Your task to perform on an android device: find photos in the google photos app Image 0: 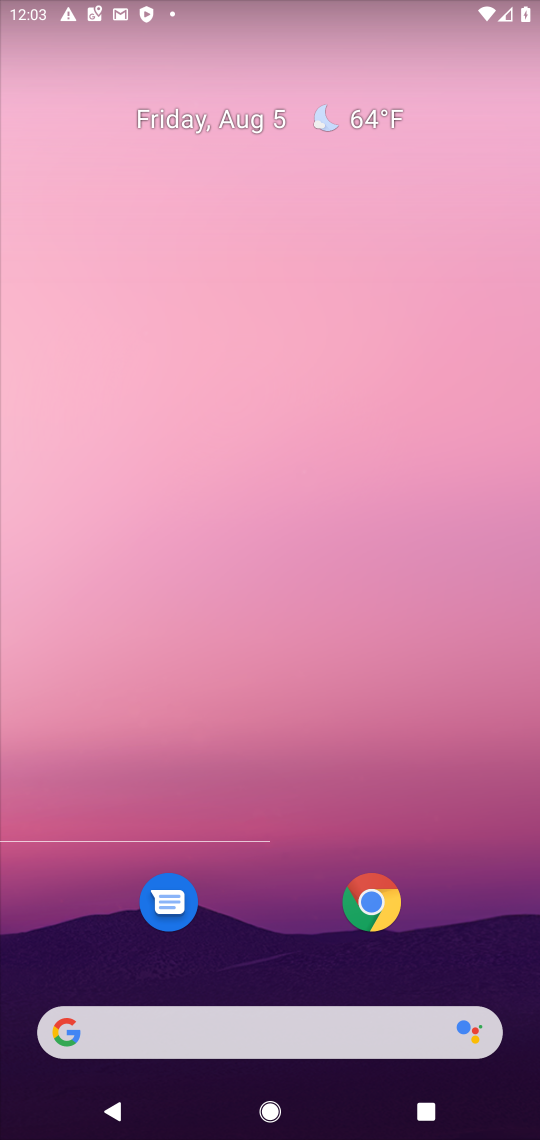
Step 0: press home button
Your task to perform on an android device: find photos in the google photos app Image 1: 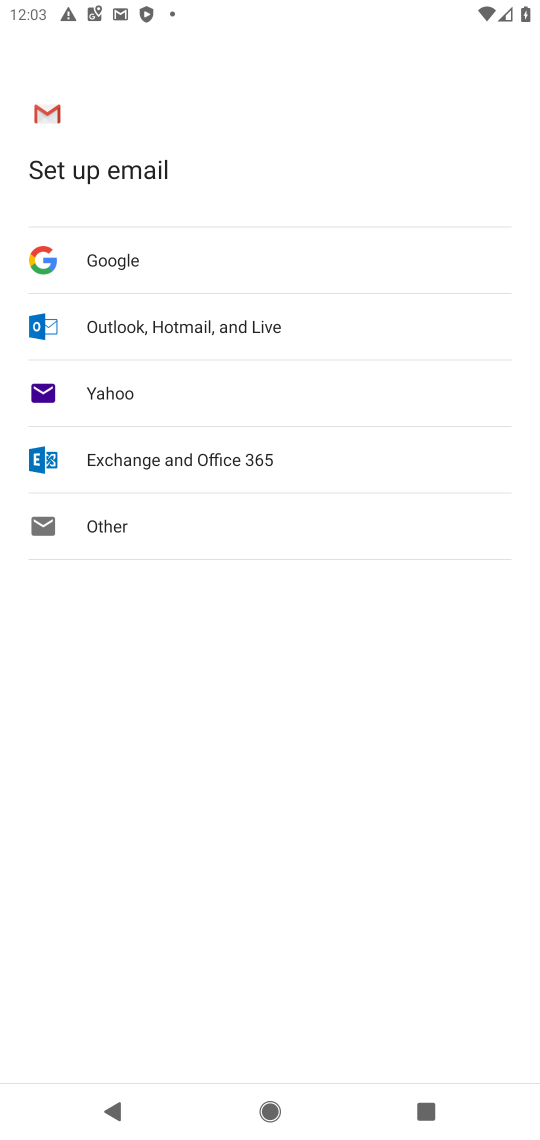
Step 1: drag from (362, 201) to (370, 105)
Your task to perform on an android device: find photos in the google photos app Image 2: 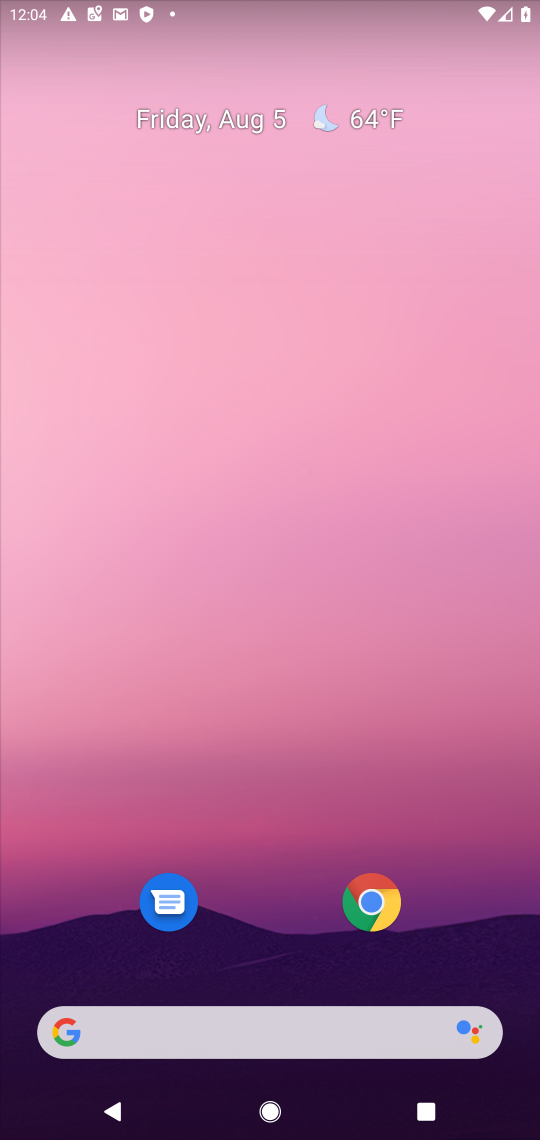
Step 2: drag from (287, 923) to (355, 34)
Your task to perform on an android device: find photos in the google photos app Image 3: 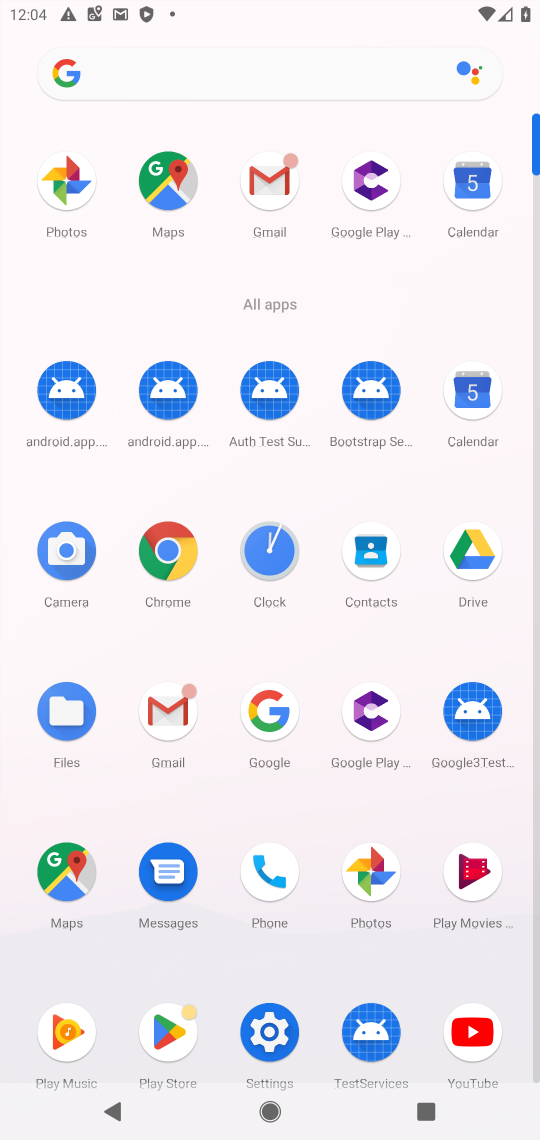
Step 3: click (366, 861)
Your task to perform on an android device: find photos in the google photos app Image 4: 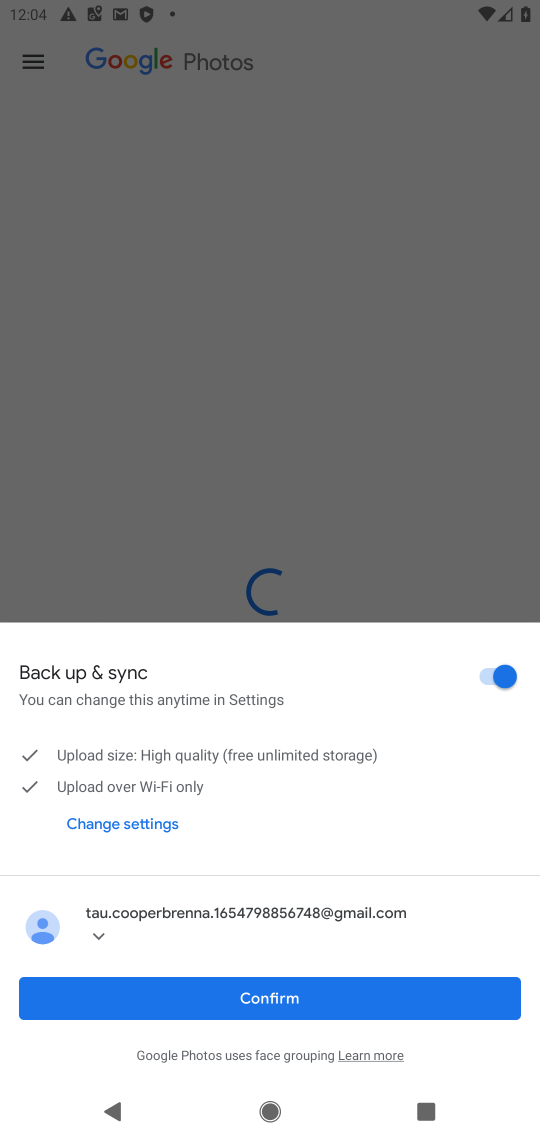
Step 4: click (288, 998)
Your task to perform on an android device: find photos in the google photos app Image 5: 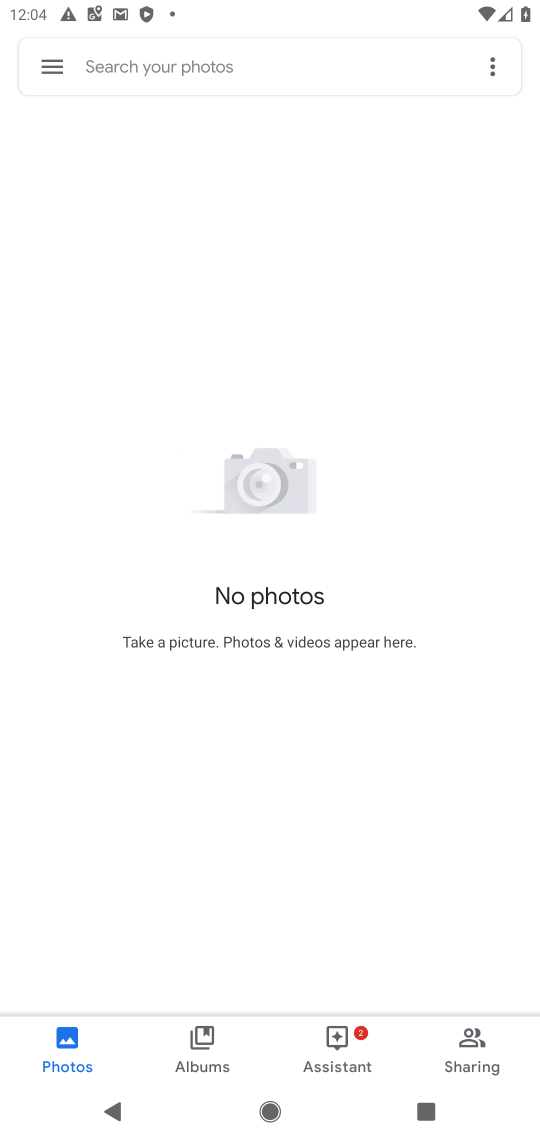
Step 5: task complete